Your task to perform on an android device: clear all cookies in the chrome app Image 0: 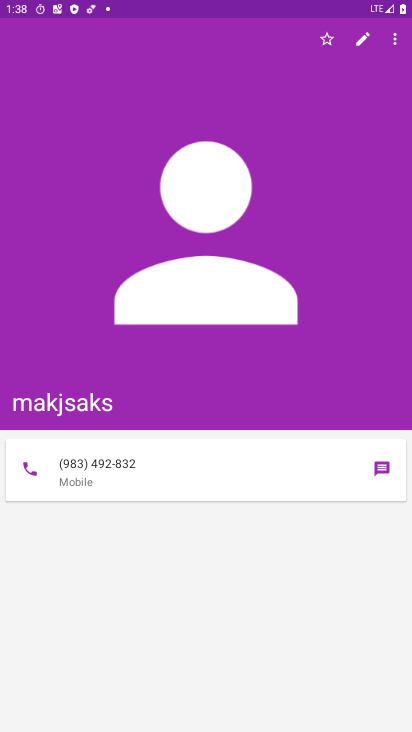
Step 0: drag from (200, 607) to (392, 325)
Your task to perform on an android device: clear all cookies in the chrome app Image 1: 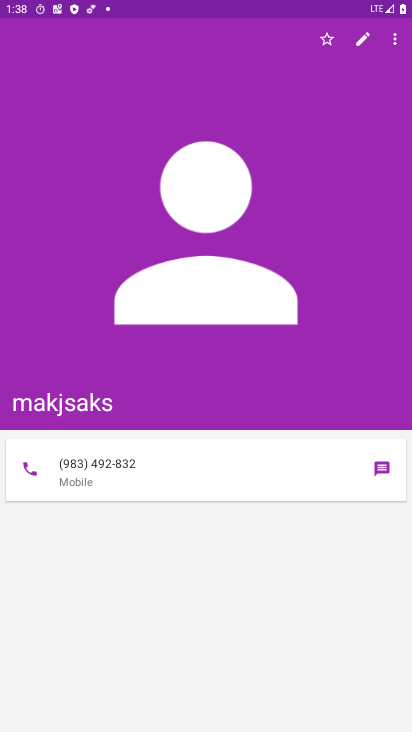
Step 1: press home button
Your task to perform on an android device: clear all cookies in the chrome app Image 2: 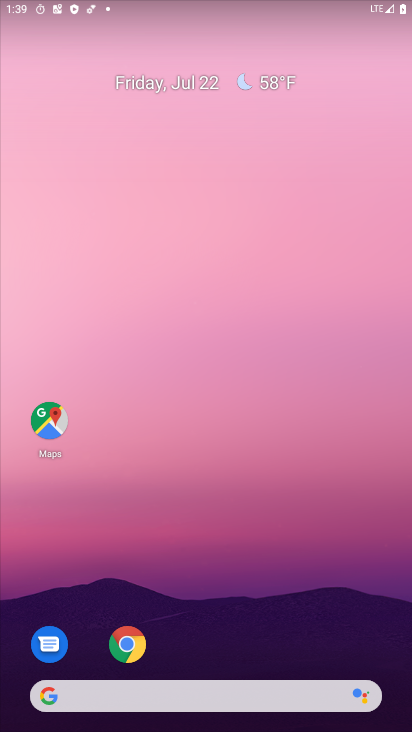
Step 2: drag from (207, 635) to (308, 120)
Your task to perform on an android device: clear all cookies in the chrome app Image 3: 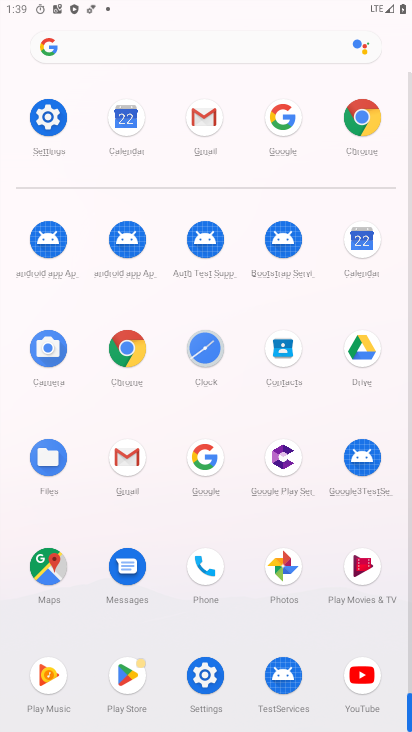
Step 3: click (128, 341)
Your task to perform on an android device: clear all cookies in the chrome app Image 4: 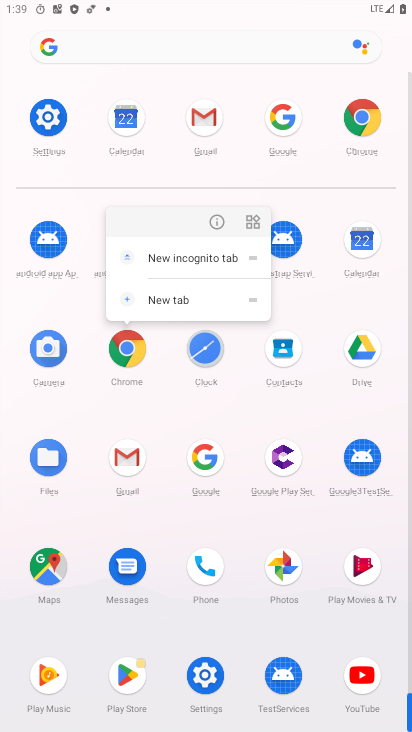
Step 4: click (214, 224)
Your task to perform on an android device: clear all cookies in the chrome app Image 5: 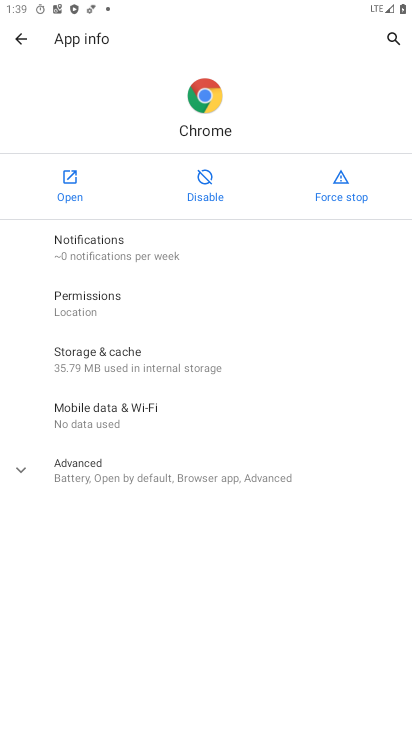
Step 5: click (83, 181)
Your task to perform on an android device: clear all cookies in the chrome app Image 6: 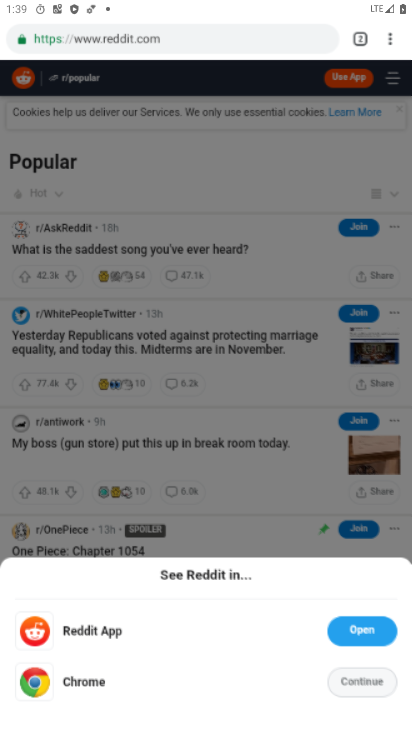
Step 6: drag from (207, 346) to (227, 269)
Your task to perform on an android device: clear all cookies in the chrome app Image 7: 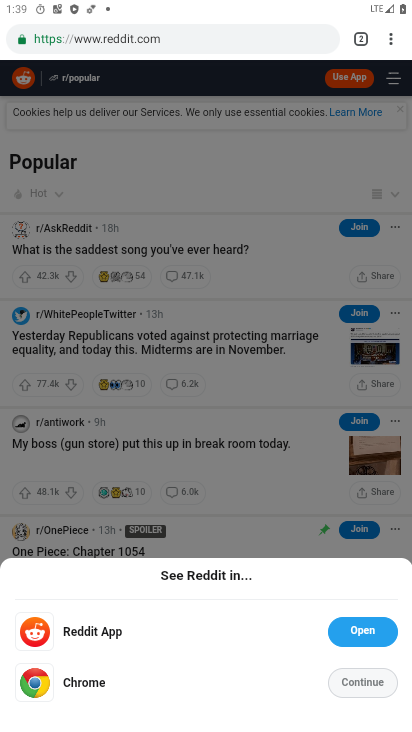
Step 7: drag from (385, 37) to (281, 519)
Your task to perform on an android device: clear all cookies in the chrome app Image 8: 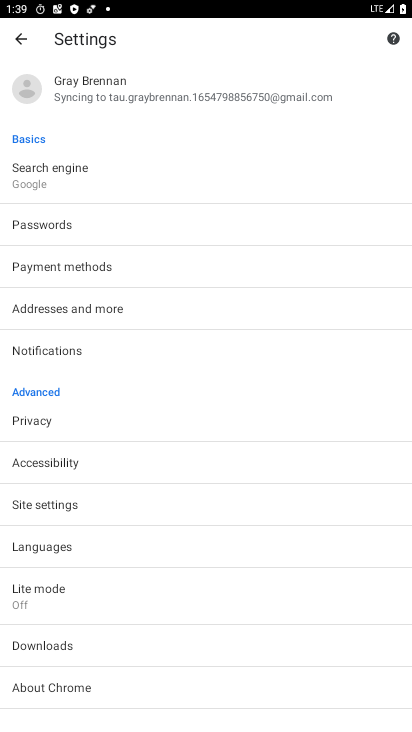
Step 8: click (92, 511)
Your task to perform on an android device: clear all cookies in the chrome app Image 9: 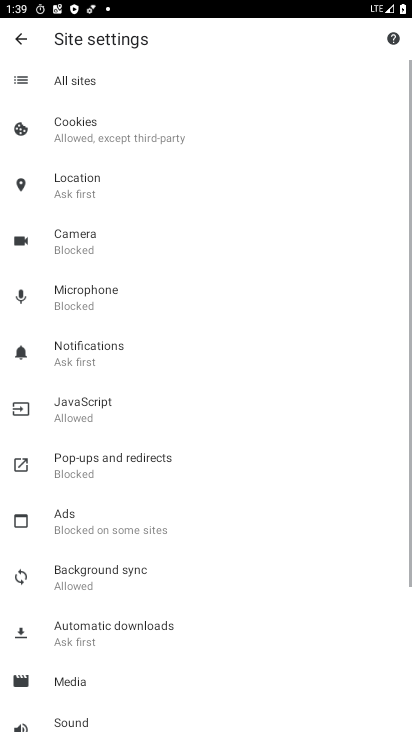
Step 9: drag from (96, 503) to (261, 58)
Your task to perform on an android device: clear all cookies in the chrome app Image 10: 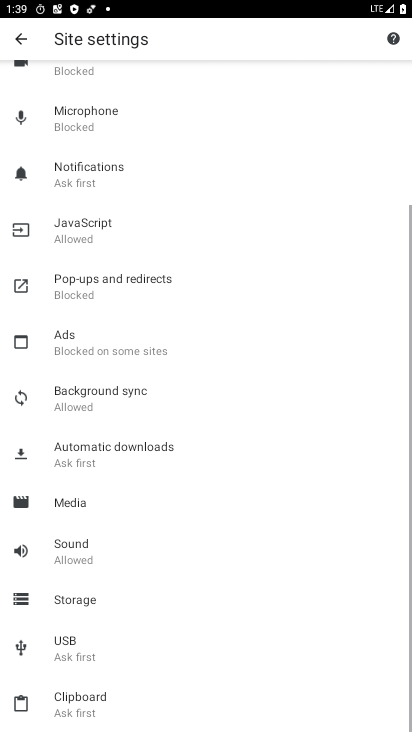
Step 10: drag from (183, 201) to (181, 731)
Your task to perform on an android device: clear all cookies in the chrome app Image 11: 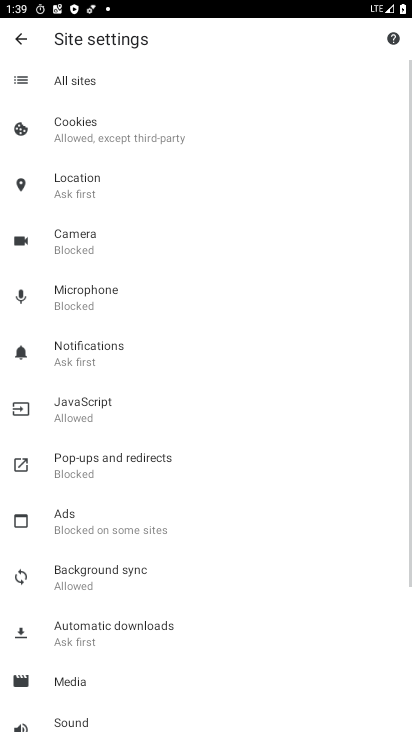
Step 11: click (145, 131)
Your task to perform on an android device: clear all cookies in the chrome app Image 12: 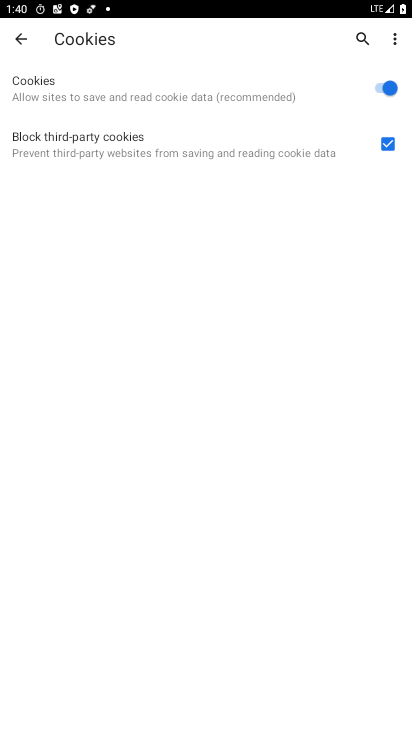
Step 12: click (28, 41)
Your task to perform on an android device: clear all cookies in the chrome app Image 13: 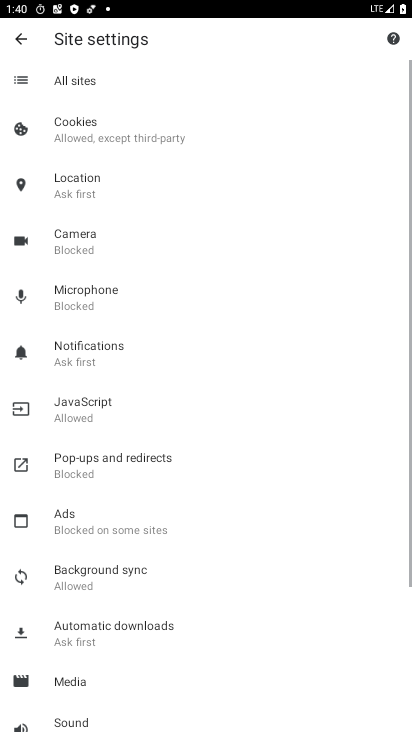
Step 13: click (25, 40)
Your task to perform on an android device: clear all cookies in the chrome app Image 14: 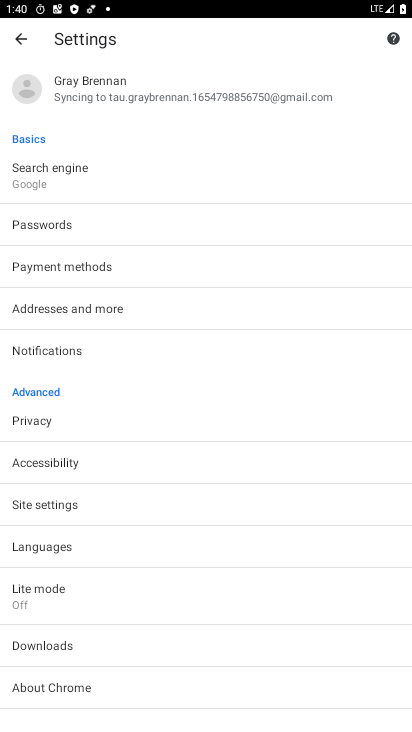
Step 14: click (18, 32)
Your task to perform on an android device: clear all cookies in the chrome app Image 15: 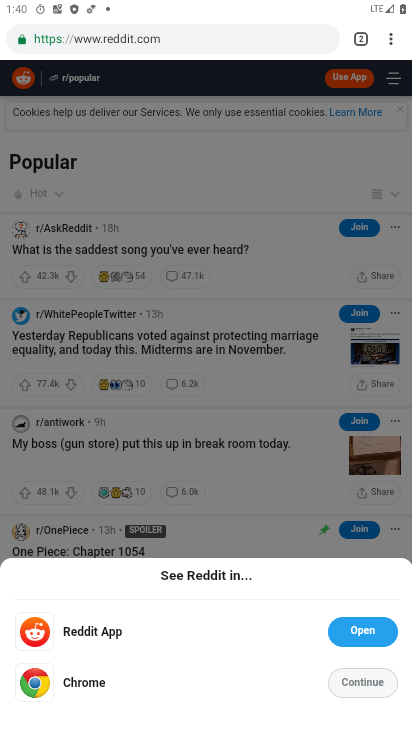
Step 15: task complete